Your task to perform on an android device: check android version Image 0: 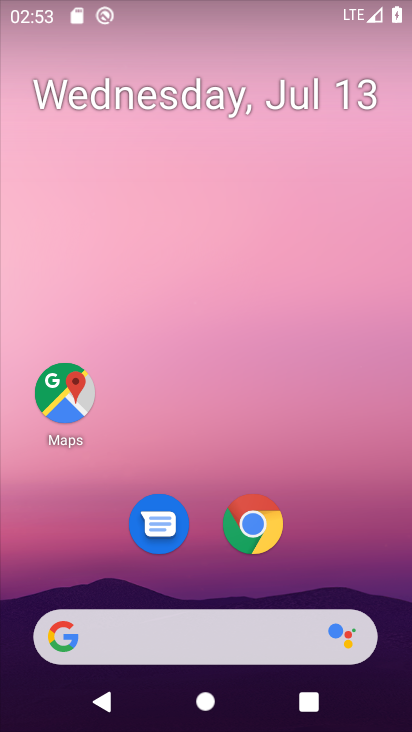
Step 0: drag from (325, 563) to (313, 40)
Your task to perform on an android device: check android version Image 1: 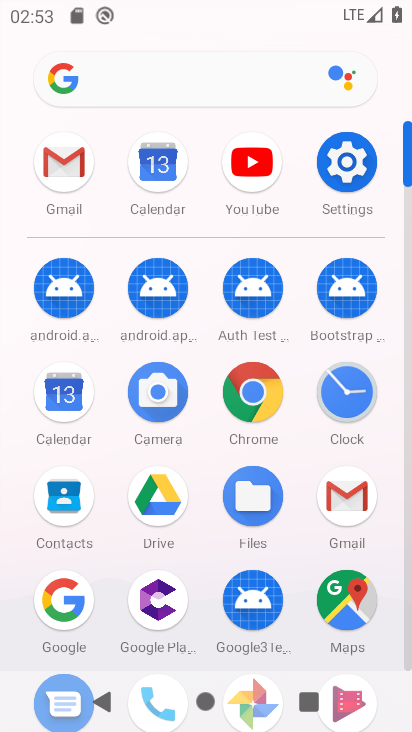
Step 1: click (336, 165)
Your task to perform on an android device: check android version Image 2: 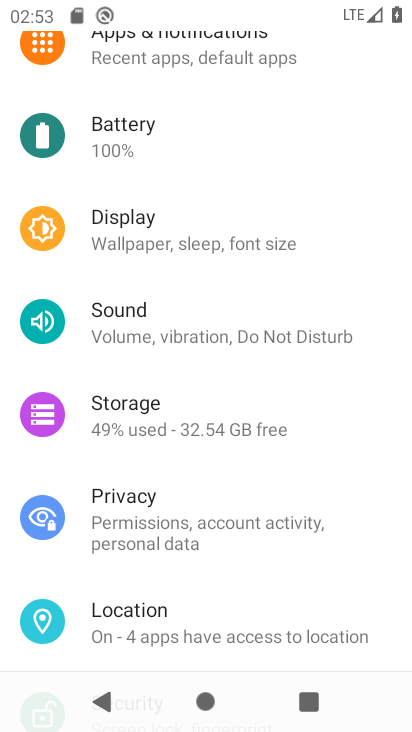
Step 2: drag from (243, 556) to (277, 13)
Your task to perform on an android device: check android version Image 3: 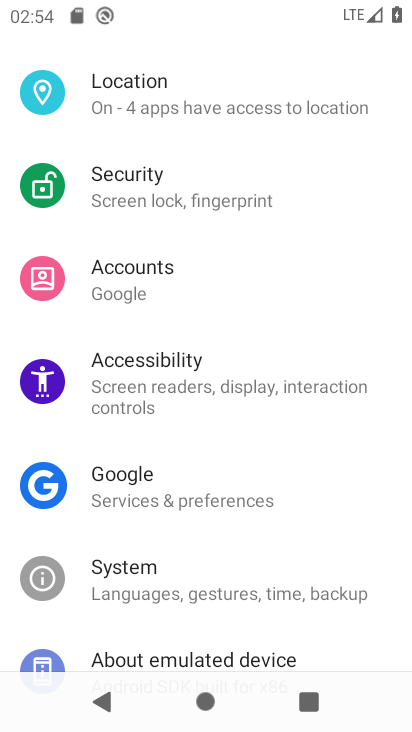
Step 3: drag from (227, 538) to (226, 326)
Your task to perform on an android device: check android version Image 4: 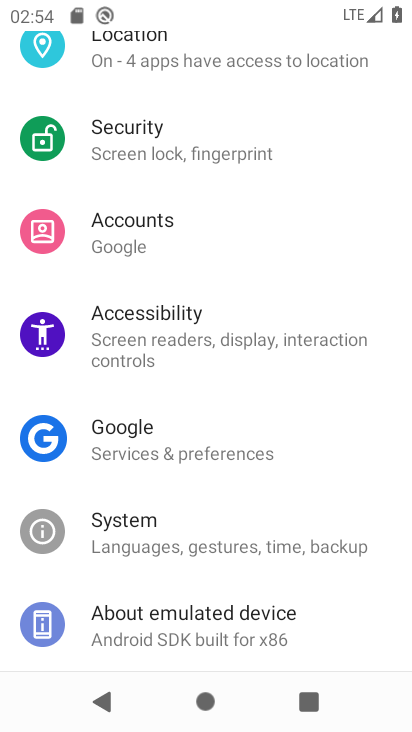
Step 4: click (226, 620)
Your task to perform on an android device: check android version Image 5: 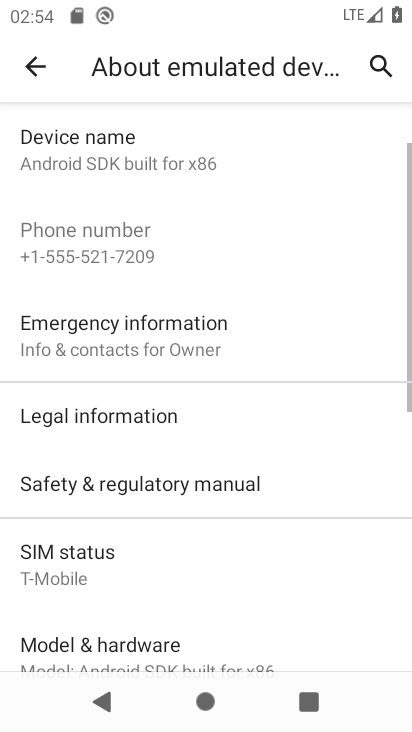
Step 5: drag from (227, 607) to (227, 210)
Your task to perform on an android device: check android version Image 6: 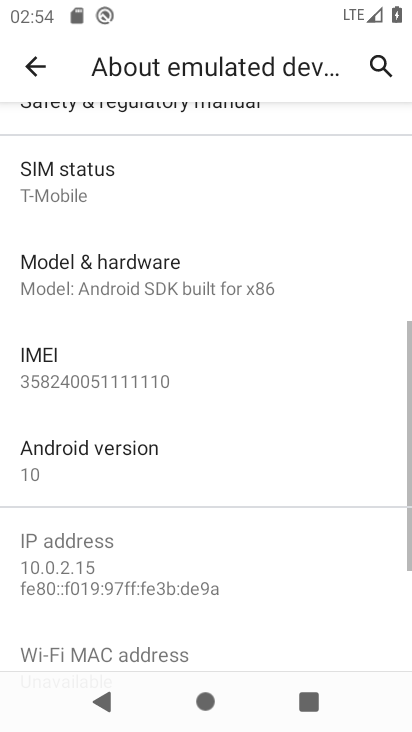
Step 6: click (122, 471)
Your task to perform on an android device: check android version Image 7: 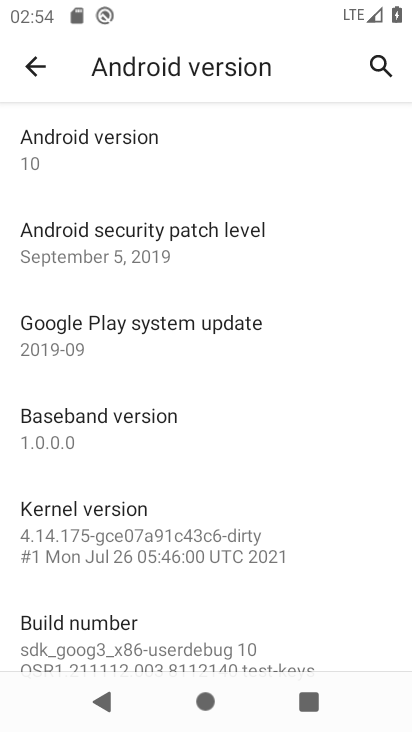
Step 7: task complete